Your task to perform on an android device: Play the last video I watched on Youtube Image 0: 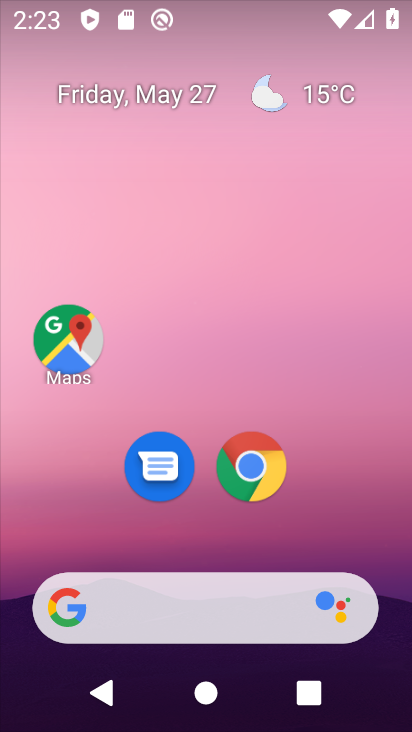
Step 0: press home button
Your task to perform on an android device: Play the last video I watched on Youtube Image 1: 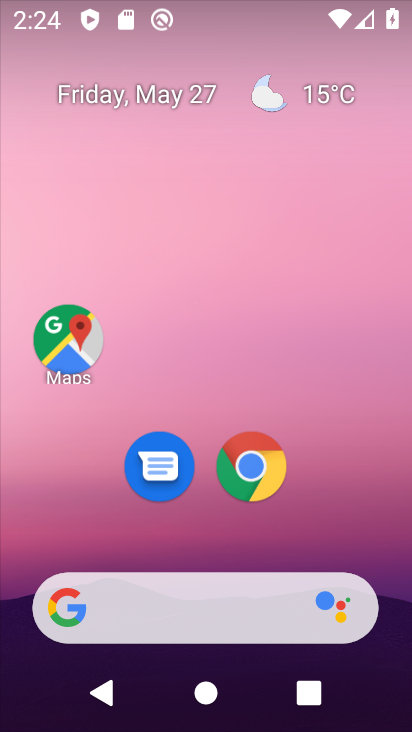
Step 1: drag from (394, 519) to (354, 130)
Your task to perform on an android device: Play the last video I watched on Youtube Image 2: 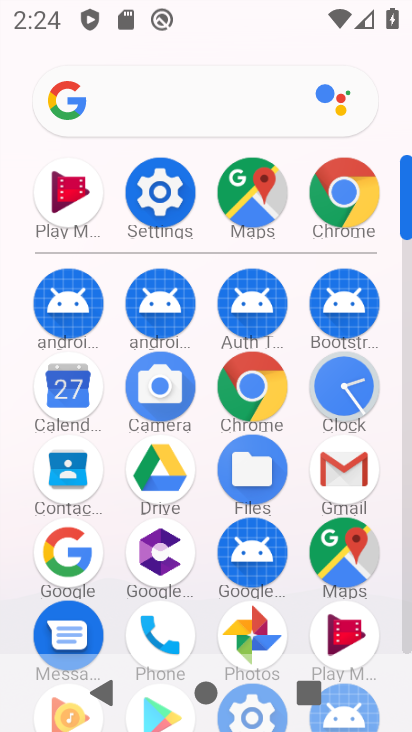
Step 2: drag from (278, 531) to (293, 251)
Your task to perform on an android device: Play the last video I watched on Youtube Image 3: 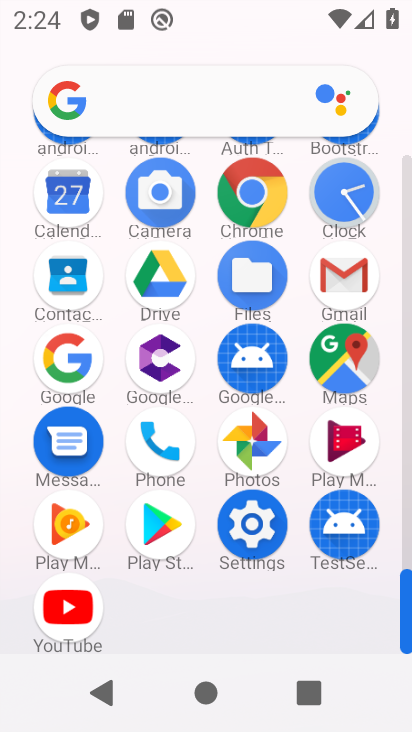
Step 3: click (76, 617)
Your task to perform on an android device: Play the last video I watched on Youtube Image 4: 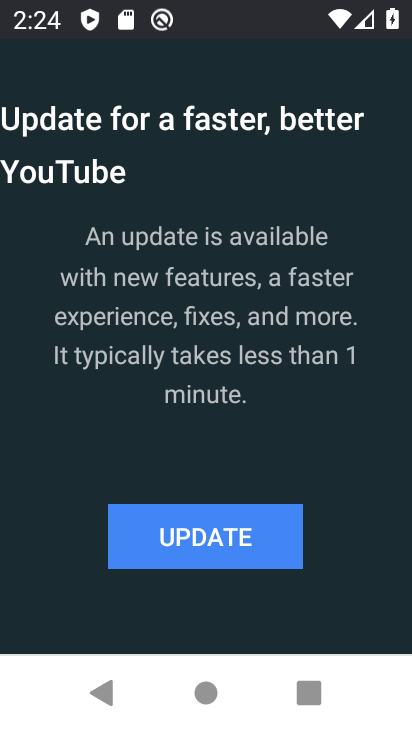
Step 4: click (240, 543)
Your task to perform on an android device: Play the last video I watched on Youtube Image 5: 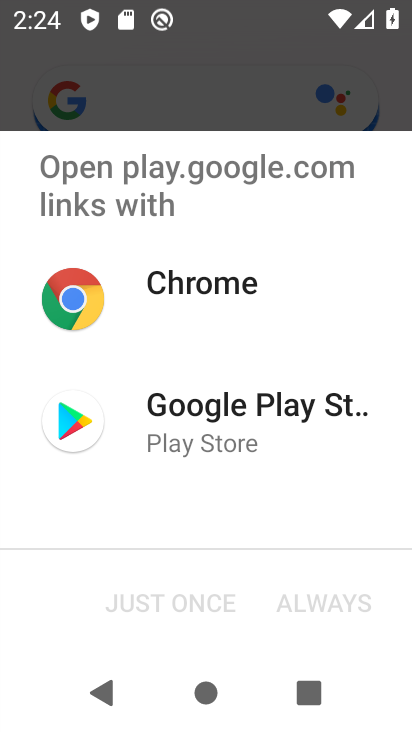
Step 5: click (182, 462)
Your task to perform on an android device: Play the last video I watched on Youtube Image 6: 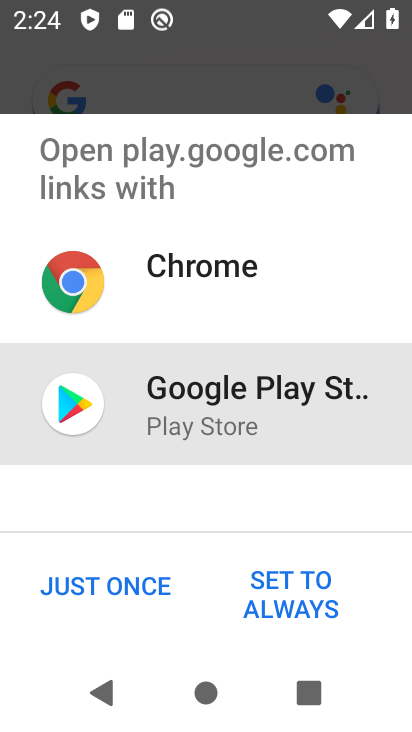
Step 6: click (177, 604)
Your task to perform on an android device: Play the last video I watched on Youtube Image 7: 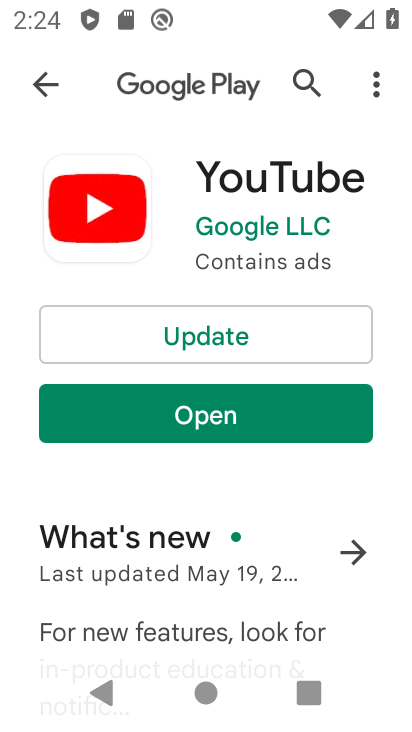
Step 7: click (275, 336)
Your task to perform on an android device: Play the last video I watched on Youtube Image 8: 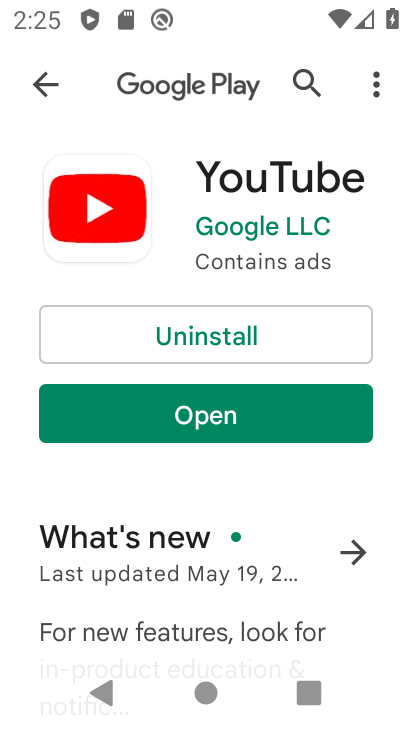
Step 8: click (313, 418)
Your task to perform on an android device: Play the last video I watched on Youtube Image 9: 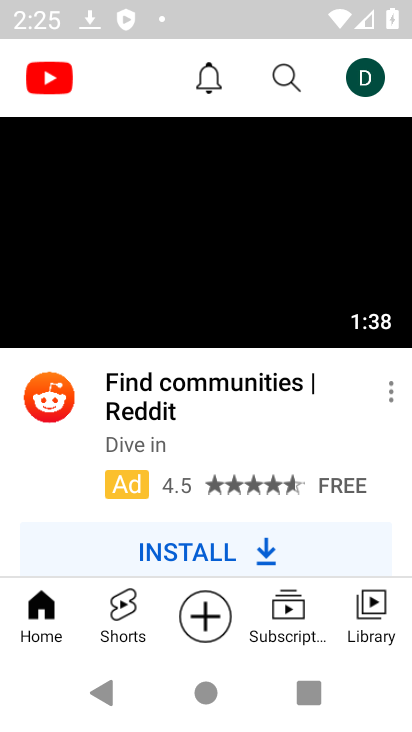
Step 9: click (382, 623)
Your task to perform on an android device: Play the last video I watched on Youtube Image 10: 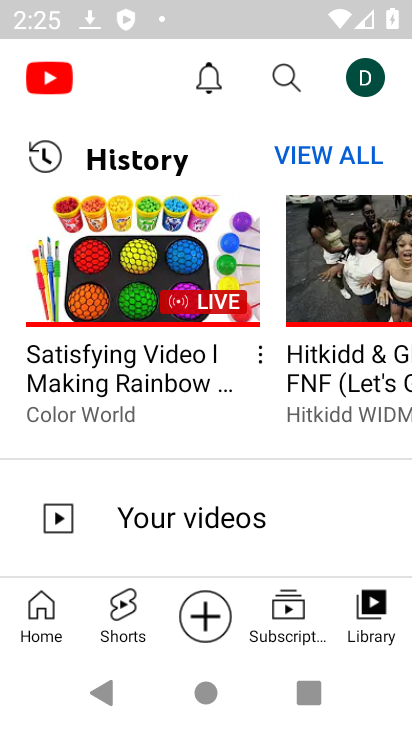
Step 10: task complete